Your task to perform on an android device: Go to Maps Image 0: 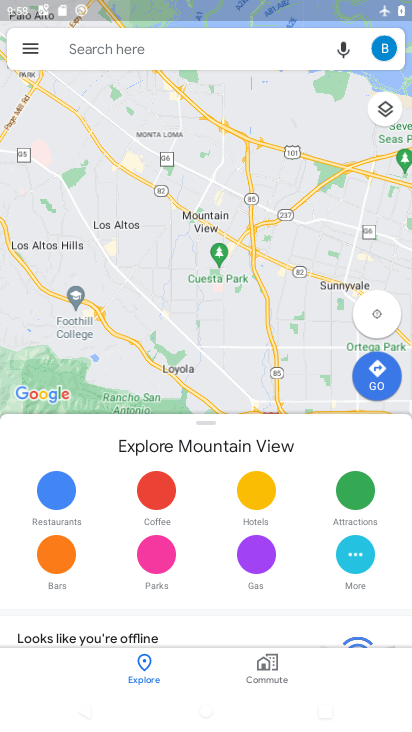
Step 0: task complete